Your task to perform on an android device: read, delete, or share a saved page in the chrome app Image 0: 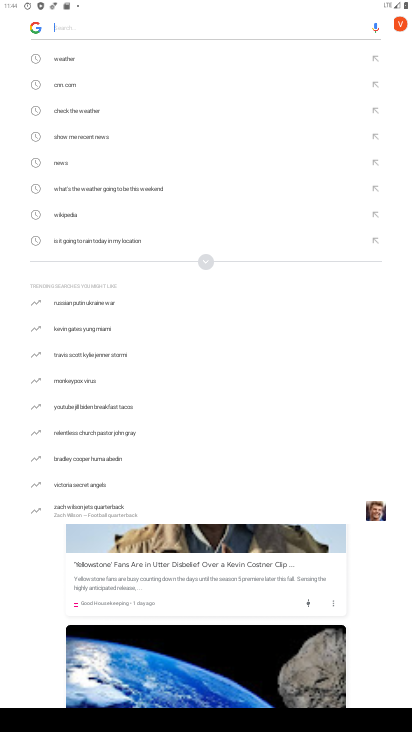
Step 0: press home button
Your task to perform on an android device: read, delete, or share a saved page in the chrome app Image 1: 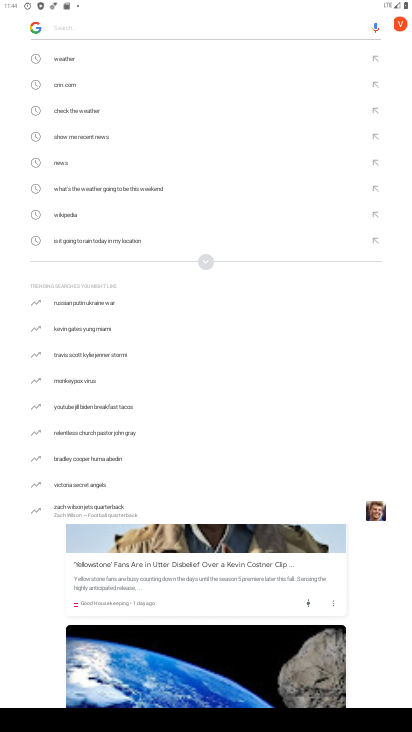
Step 1: press home button
Your task to perform on an android device: read, delete, or share a saved page in the chrome app Image 2: 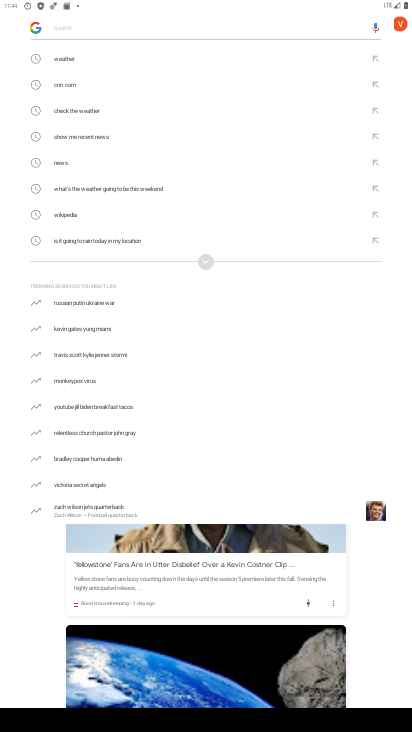
Step 2: click (230, 72)
Your task to perform on an android device: read, delete, or share a saved page in the chrome app Image 3: 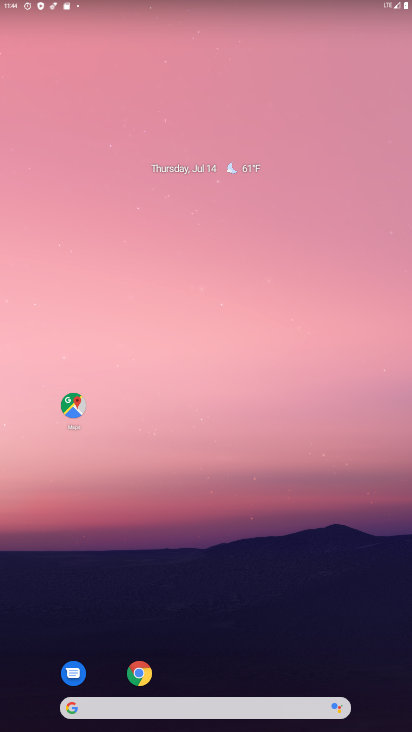
Step 3: drag from (212, 656) to (221, 351)
Your task to perform on an android device: read, delete, or share a saved page in the chrome app Image 4: 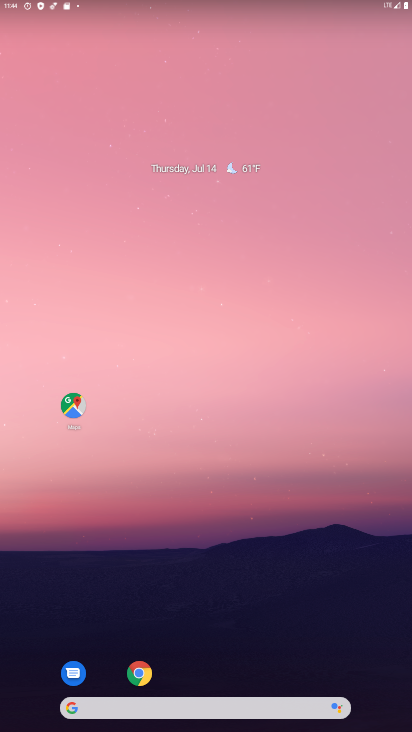
Step 4: drag from (183, 621) to (241, 297)
Your task to perform on an android device: read, delete, or share a saved page in the chrome app Image 5: 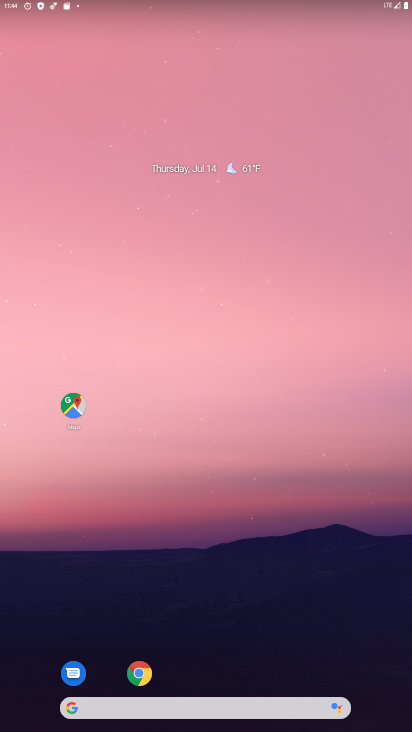
Step 5: drag from (206, 666) to (222, 170)
Your task to perform on an android device: read, delete, or share a saved page in the chrome app Image 6: 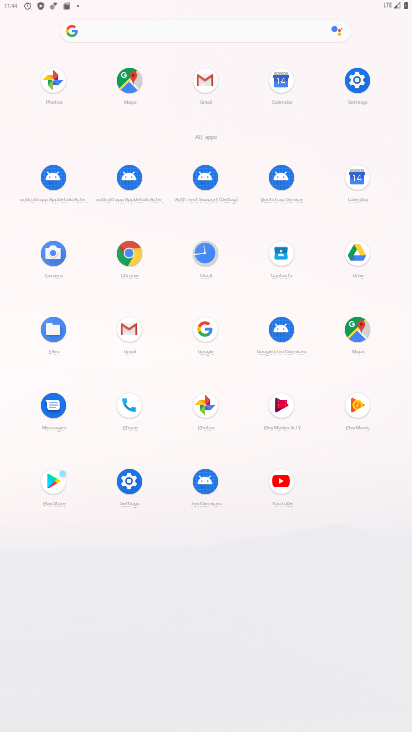
Step 6: click (130, 249)
Your task to perform on an android device: read, delete, or share a saved page in the chrome app Image 7: 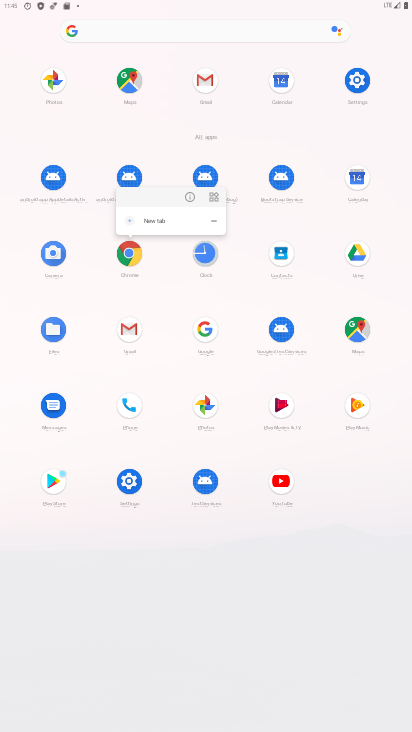
Step 7: click (183, 199)
Your task to perform on an android device: read, delete, or share a saved page in the chrome app Image 8: 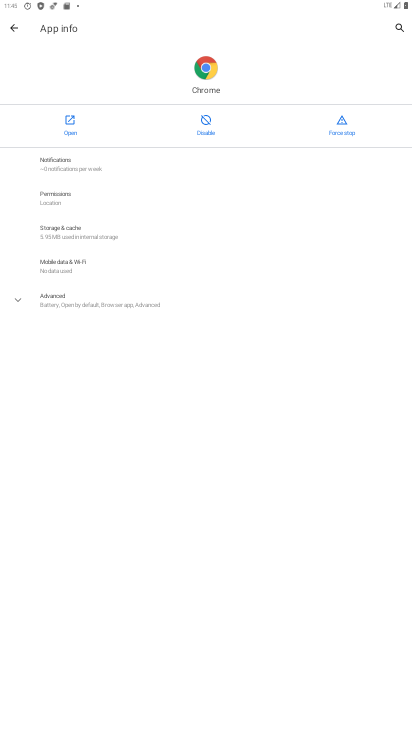
Step 8: click (65, 119)
Your task to perform on an android device: read, delete, or share a saved page in the chrome app Image 9: 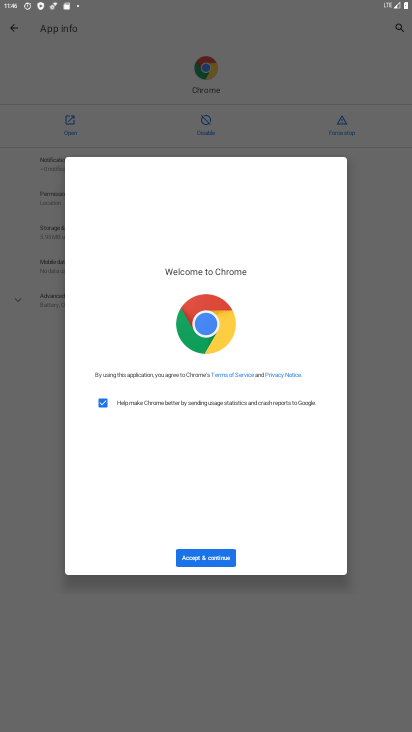
Step 9: click (196, 556)
Your task to perform on an android device: read, delete, or share a saved page in the chrome app Image 10: 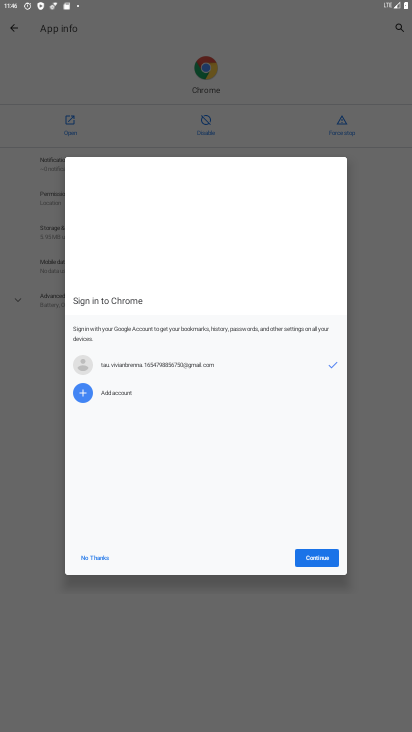
Step 10: click (200, 561)
Your task to perform on an android device: read, delete, or share a saved page in the chrome app Image 11: 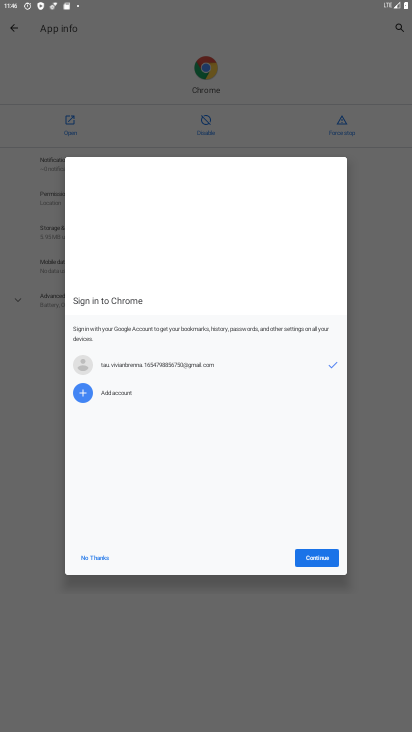
Step 11: click (318, 556)
Your task to perform on an android device: read, delete, or share a saved page in the chrome app Image 12: 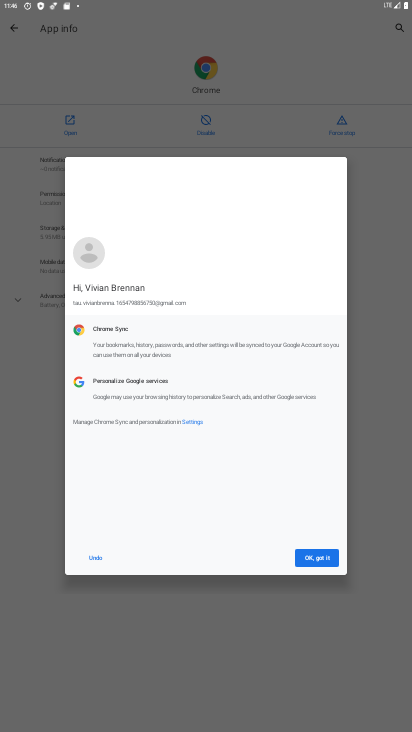
Step 12: click (317, 556)
Your task to perform on an android device: read, delete, or share a saved page in the chrome app Image 13: 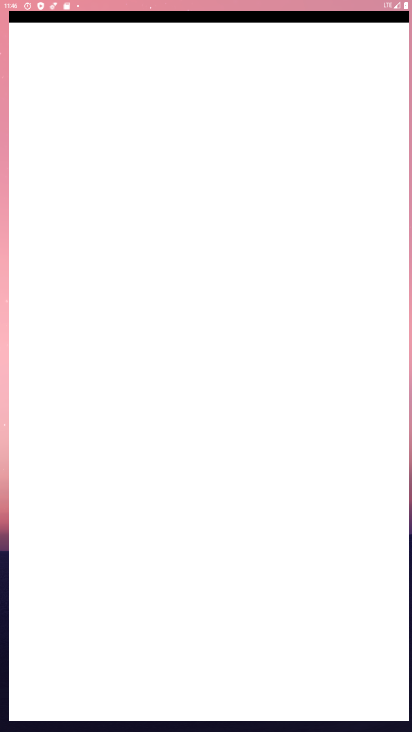
Step 13: click (317, 556)
Your task to perform on an android device: read, delete, or share a saved page in the chrome app Image 14: 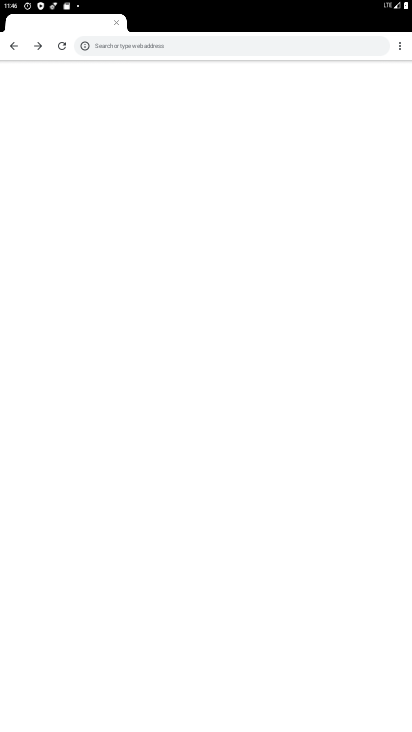
Step 14: drag from (209, 609) to (285, 330)
Your task to perform on an android device: read, delete, or share a saved page in the chrome app Image 15: 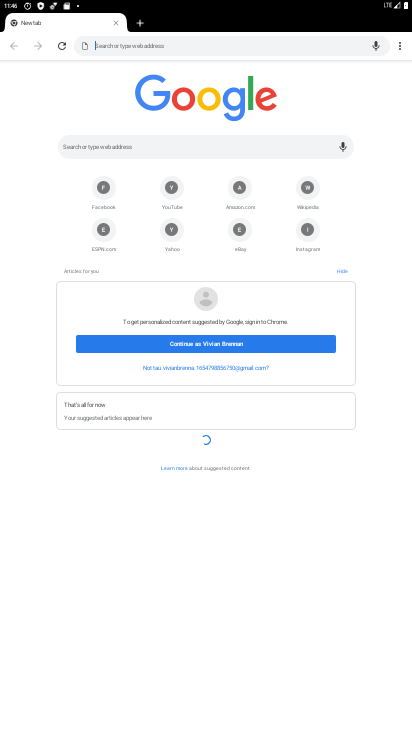
Step 15: drag from (260, 498) to (283, 304)
Your task to perform on an android device: read, delete, or share a saved page in the chrome app Image 16: 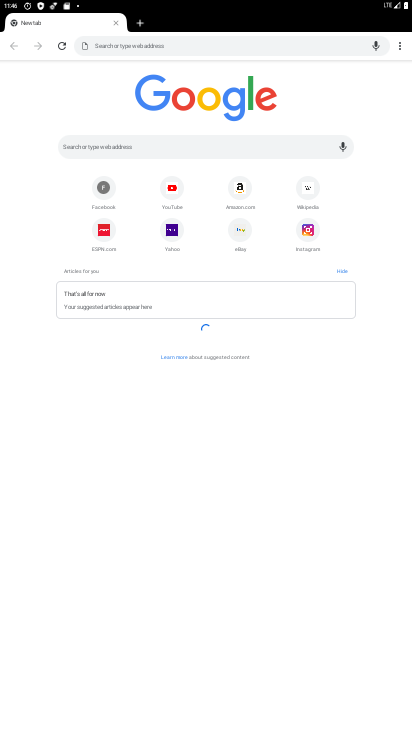
Step 16: click (398, 41)
Your task to perform on an android device: read, delete, or share a saved page in the chrome app Image 17: 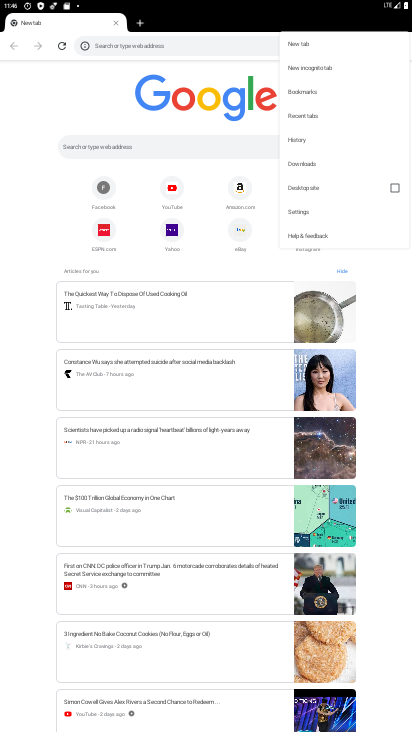
Step 17: click (322, 92)
Your task to perform on an android device: read, delete, or share a saved page in the chrome app Image 18: 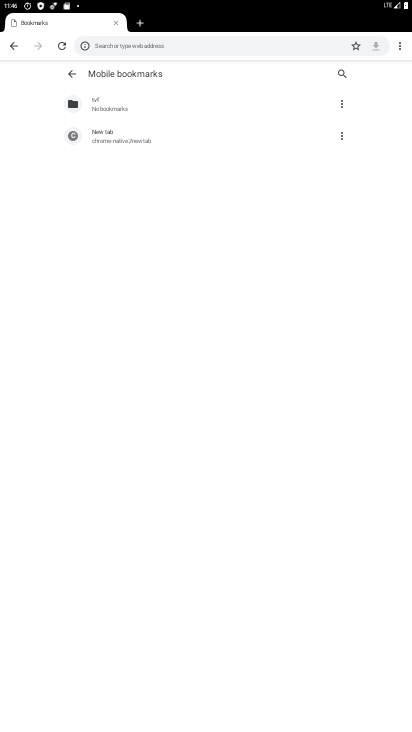
Step 18: click (132, 123)
Your task to perform on an android device: read, delete, or share a saved page in the chrome app Image 19: 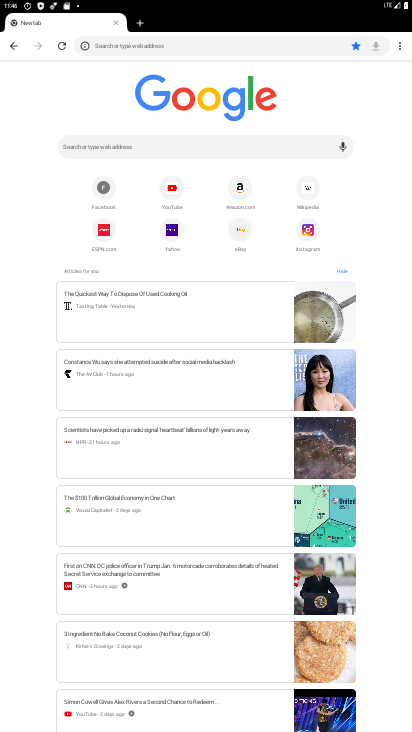
Step 19: task complete